Your task to perform on an android device: Add bose quietcomfort 35 to the cart on costco Image 0: 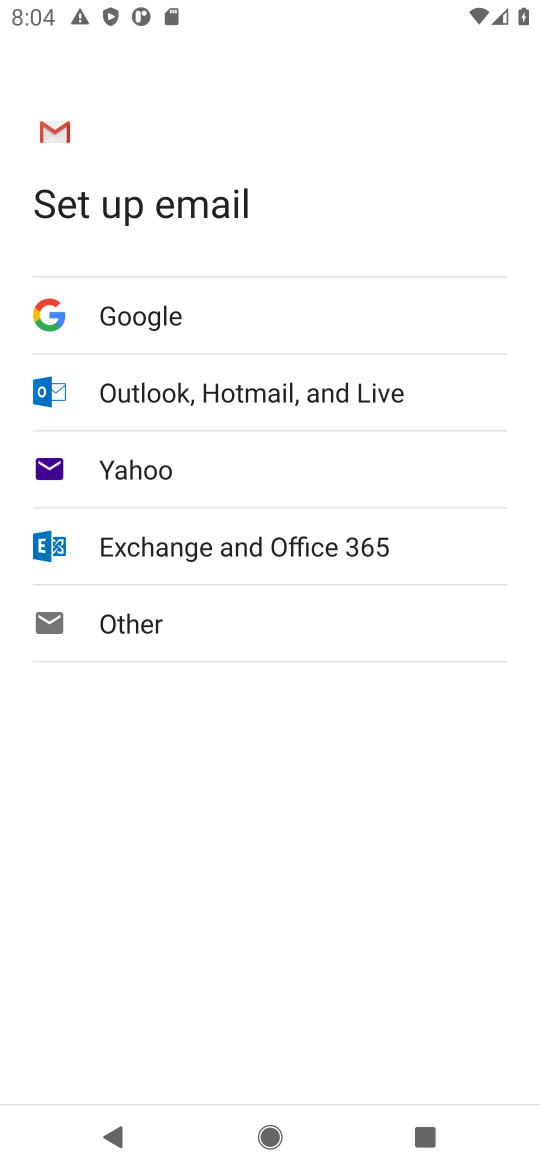
Step 0: press home button
Your task to perform on an android device: Add bose quietcomfort 35 to the cart on costco Image 1: 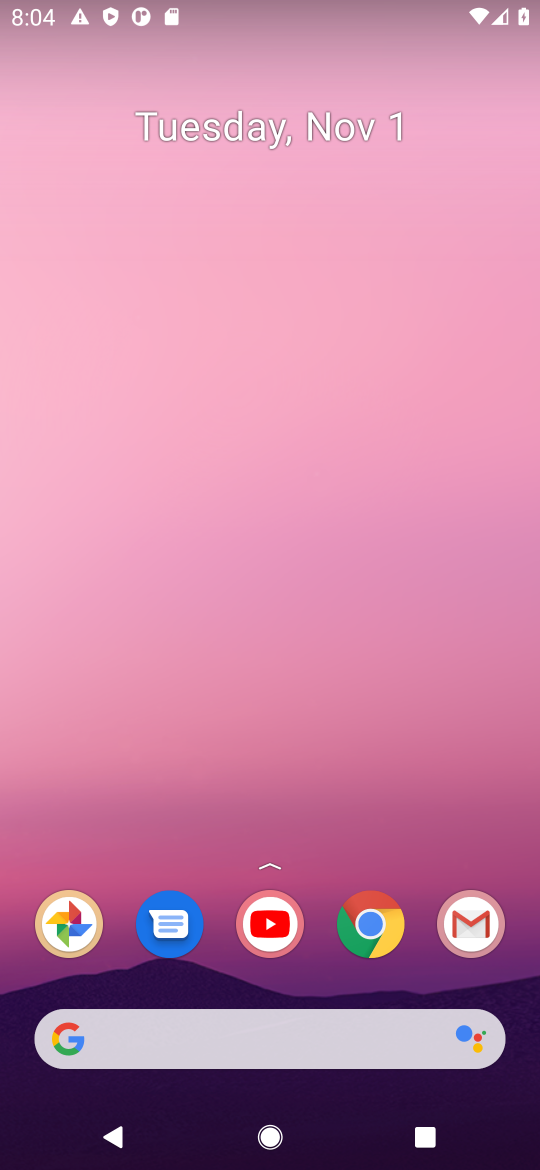
Step 1: click (125, 1033)
Your task to perform on an android device: Add bose quietcomfort 35 to the cart on costco Image 2: 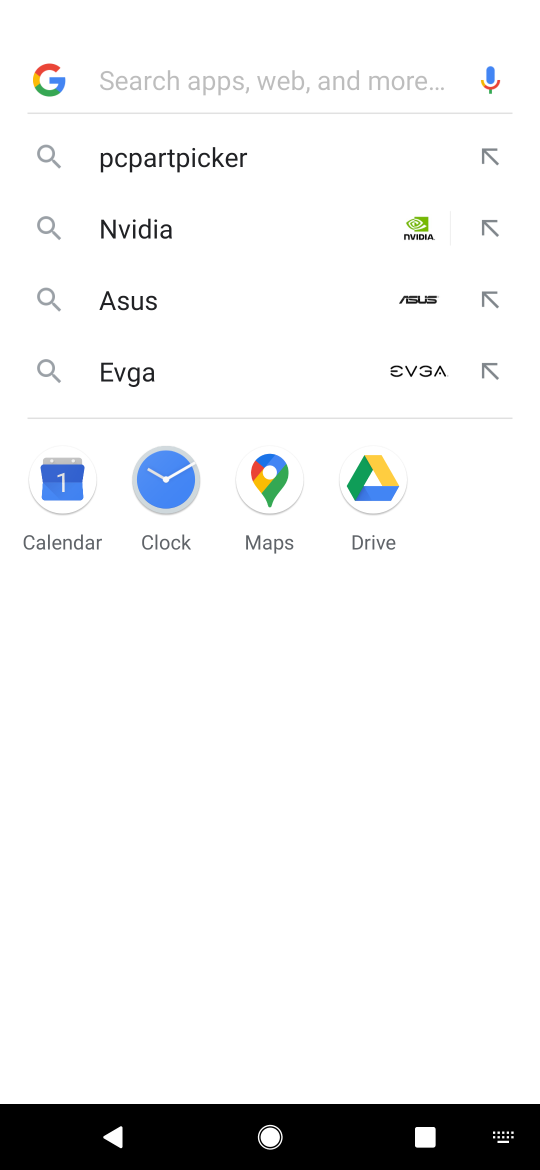
Step 2: press enter
Your task to perform on an android device: Add bose quietcomfort 35 to the cart on costco Image 3: 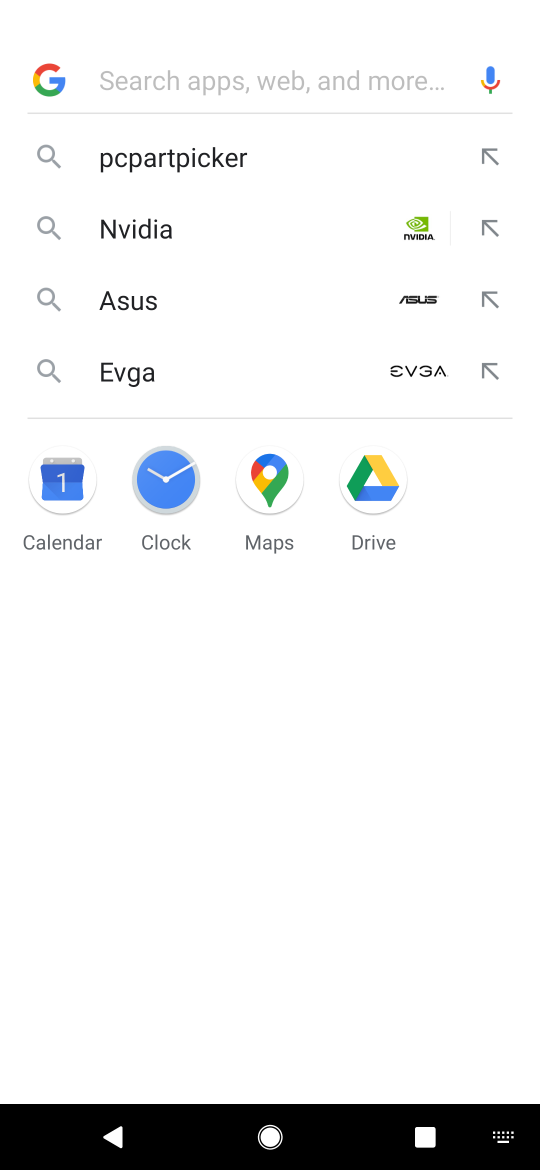
Step 3: type "costco"
Your task to perform on an android device: Add bose quietcomfort 35 to the cart on costco Image 4: 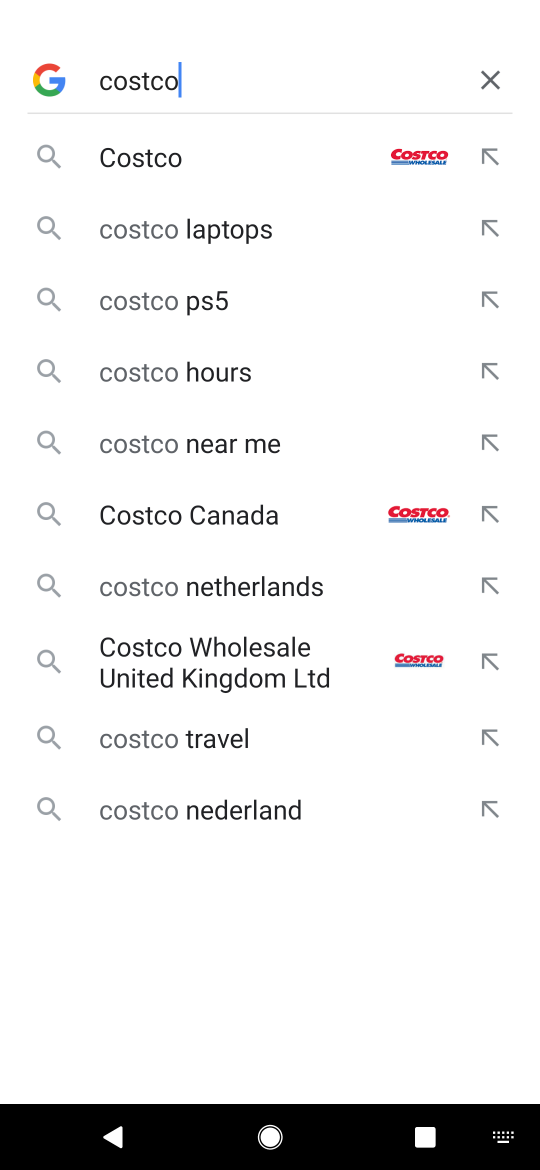
Step 4: press enter
Your task to perform on an android device: Add bose quietcomfort 35 to the cart on costco Image 5: 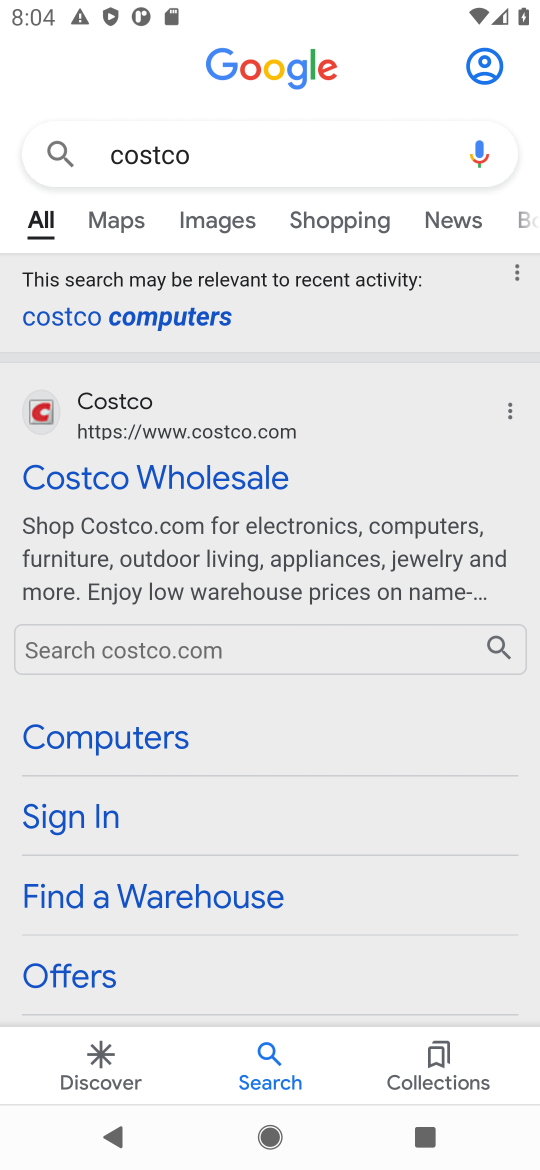
Step 5: click (172, 475)
Your task to perform on an android device: Add bose quietcomfort 35 to the cart on costco Image 6: 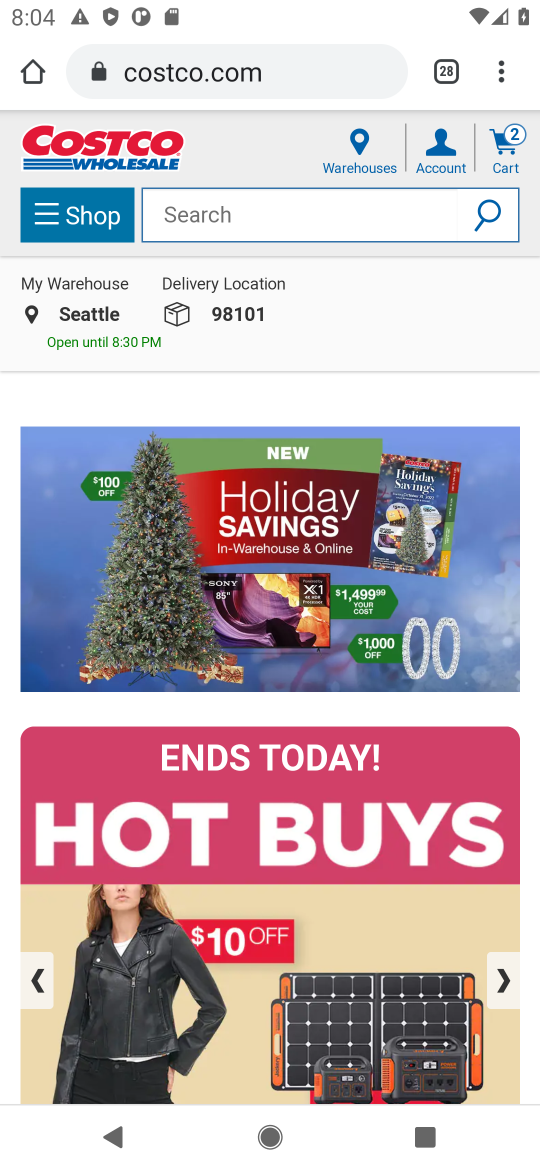
Step 6: click (172, 208)
Your task to perform on an android device: Add bose quietcomfort 35 to the cart on costco Image 7: 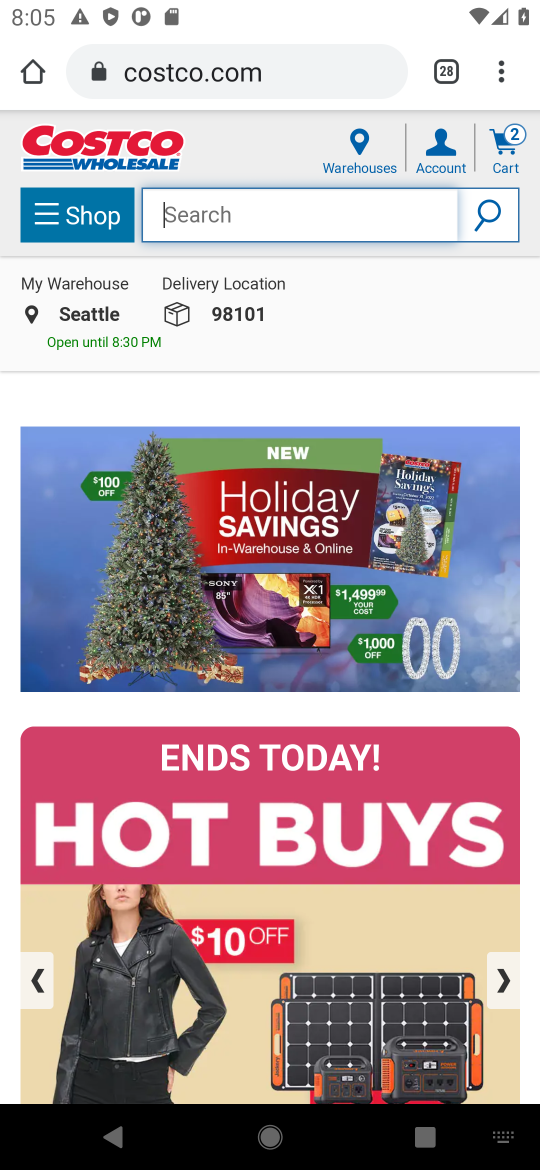
Step 7: type "bose quietcomfort 35"
Your task to perform on an android device: Add bose quietcomfort 35 to the cart on costco Image 8: 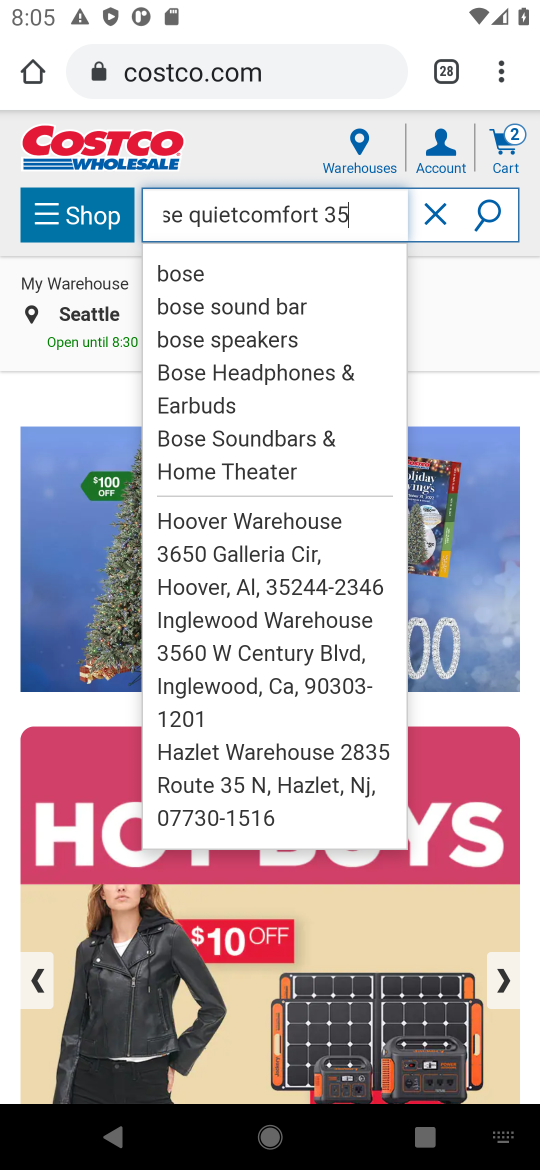
Step 8: click (496, 212)
Your task to perform on an android device: Add bose quietcomfort 35 to the cart on costco Image 9: 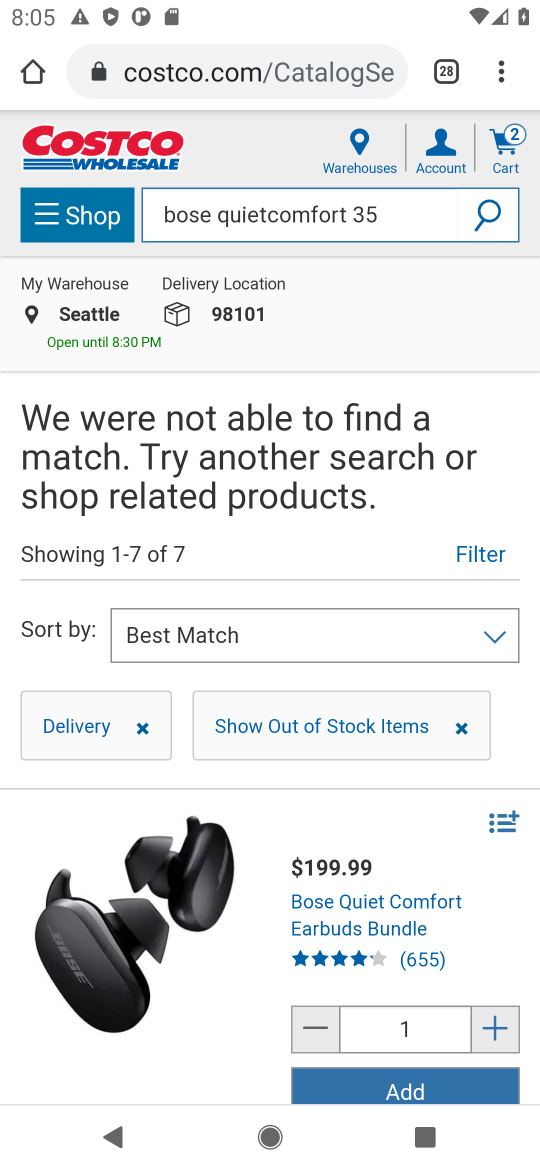
Step 9: task complete